Your task to perform on an android device: Go to notification settings Image 0: 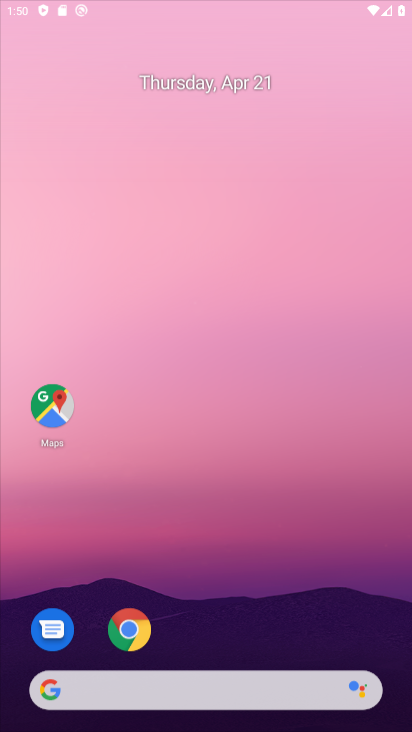
Step 0: click (249, 151)
Your task to perform on an android device: Go to notification settings Image 1: 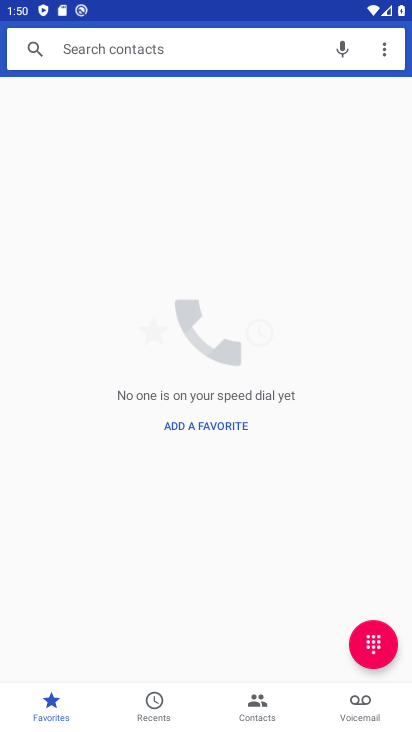
Step 1: press home button
Your task to perform on an android device: Go to notification settings Image 2: 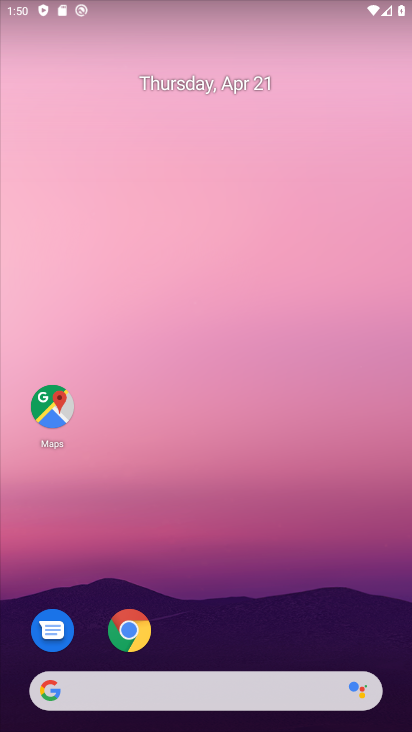
Step 2: drag from (325, 487) to (296, 154)
Your task to perform on an android device: Go to notification settings Image 3: 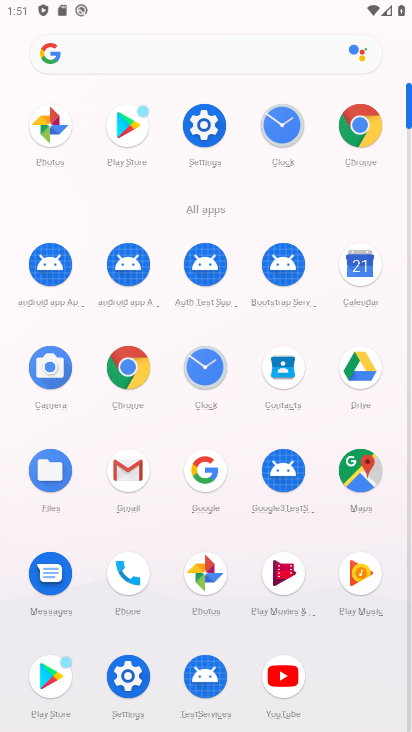
Step 3: click (212, 112)
Your task to perform on an android device: Go to notification settings Image 4: 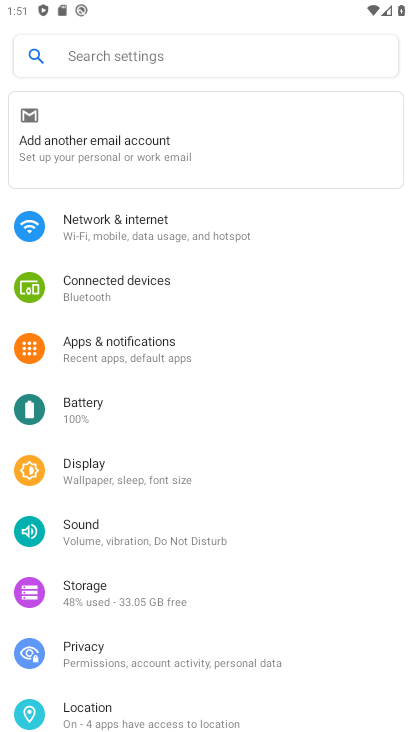
Step 4: click (155, 345)
Your task to perform on an android device: Go to notification settings Image 5: 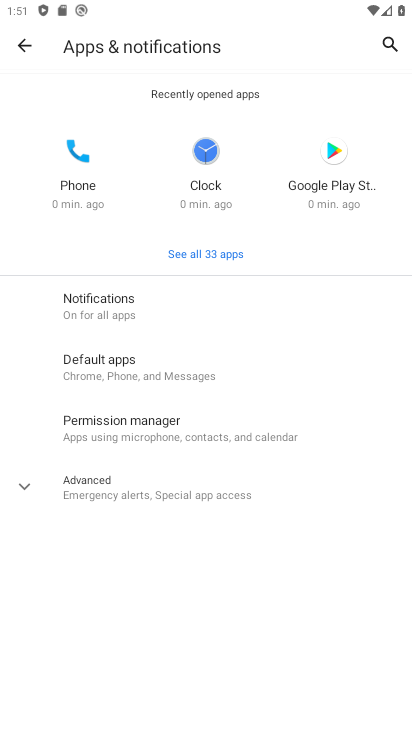
Step 5: click (137, 317)
Your task to perform on an android device: Go to notification settings Image 6: 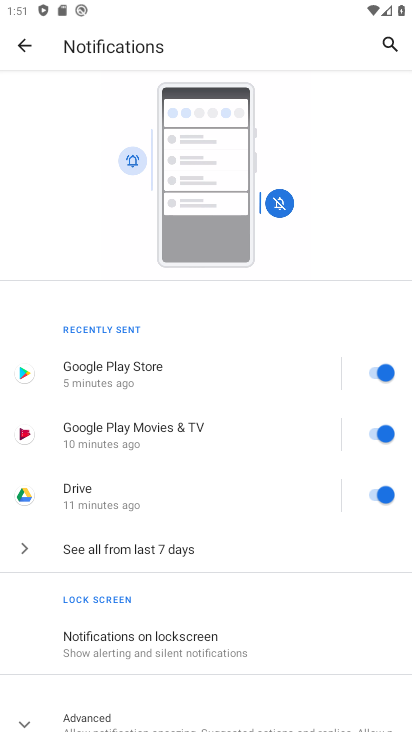
Step 6: task complete